Your task to perform on an android device: turn on priority inbox in the gmail app Image 0: 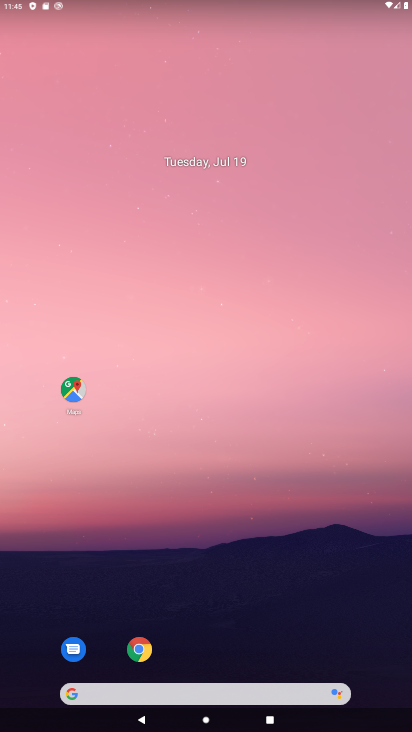
Step 0: drag from (191, 601) to (194, 271)
Your task to perform on an android device: turn on priority inbox in the gmail app Image 1: 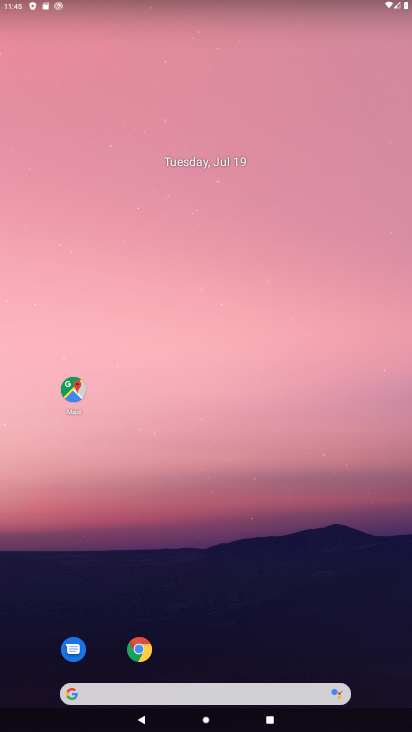
Step 1: drag from (203, 624) to (356, 3)
Your task to perform on an android device: turn on priority inbox in the gmail app Image 2: 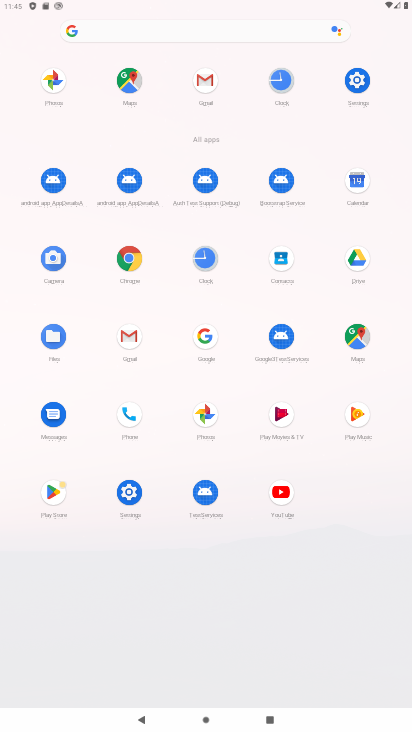
Step 2: click (129, 350)
Your task to perform on an android device: turn on priority inbox in the gmail app Image 3: 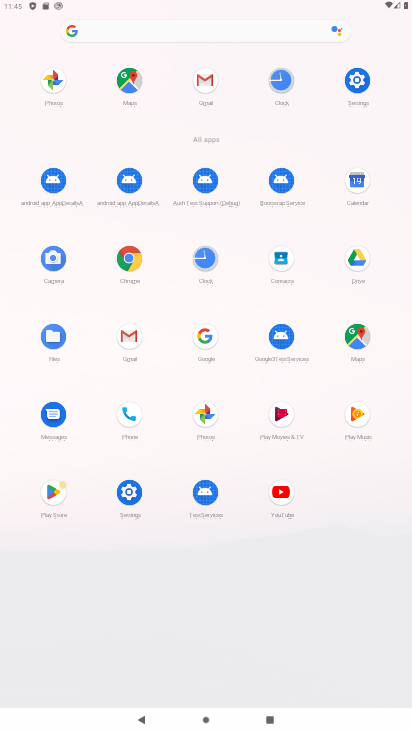
Step 3: click (128, 336)
Your task to perform on an android device: turn on priority inbox in the gmail app Image 4: 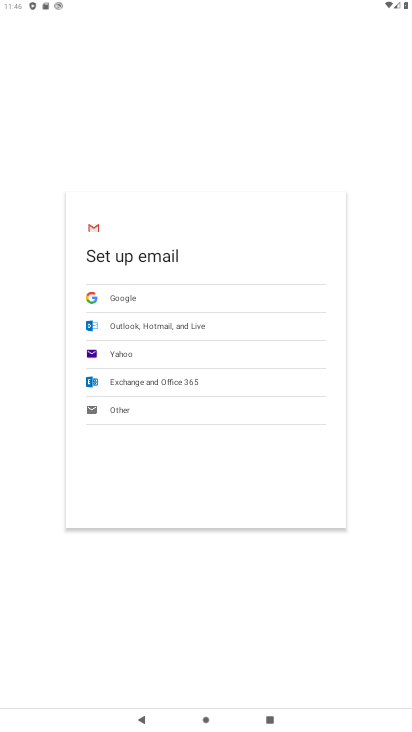
Step 4: click (118, 305)
Your task to perform on an android device: turn on priority inbox in the gmail app Image 5: 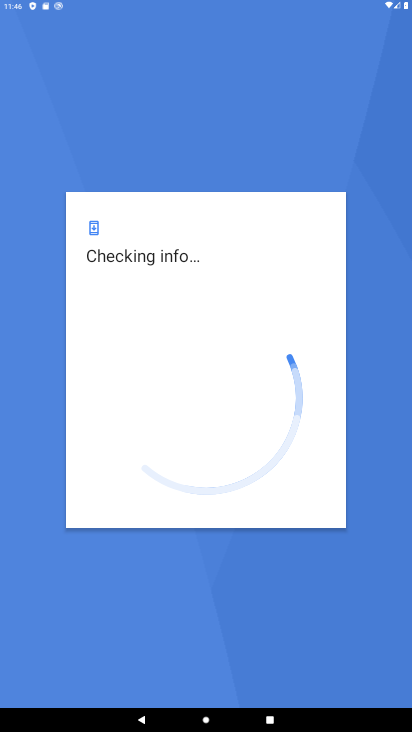
Step 5: drag from (316, 506) to (266, 164)
Your task to perform on an android device: turn on priority inbox in the gmail app Image 6: 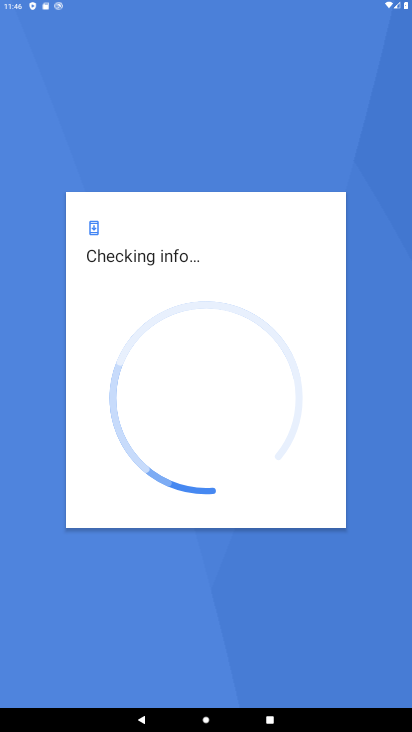
Step 6: press home button
Your task to perform on an android device: turn on priority inbox in the gmail app Image 7: 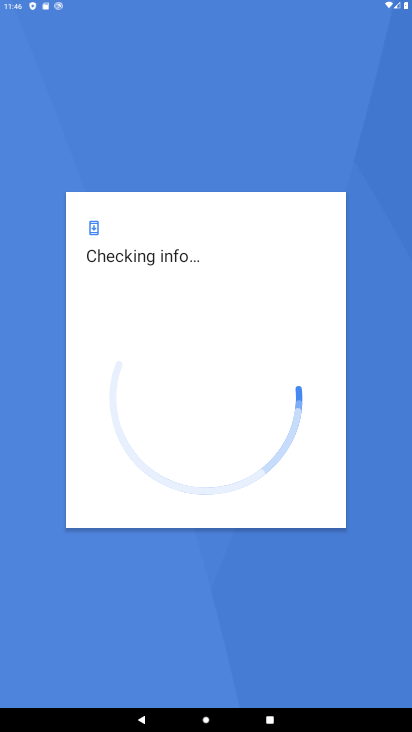
Step 7: drag from (214, 606) to (291, 240)
Your task to perform on an android device: turn on priority inbox in the gmail app Image 8: 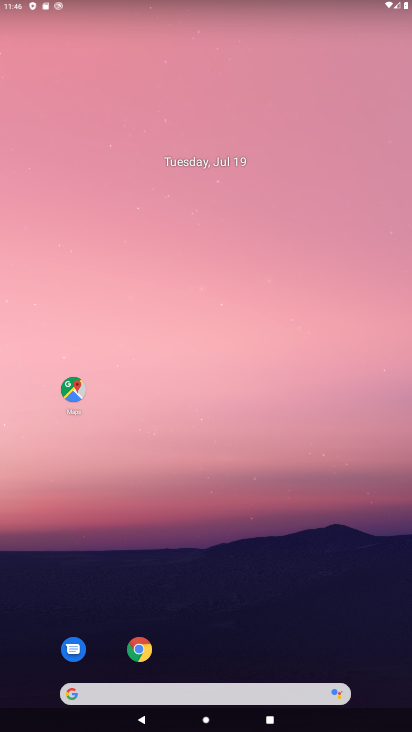
Step 8: drag from (266, 580) to (361, 19)
Your task to perform on an android device: turn on priority inbox in the gmail app Image 9: 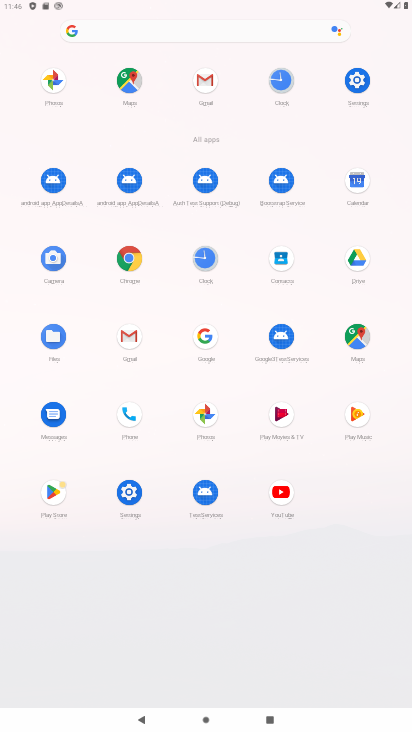
Step 9: click (124, 330)
Your task to perform on an android device: turn on priority inbox in the gmail app Image 10: 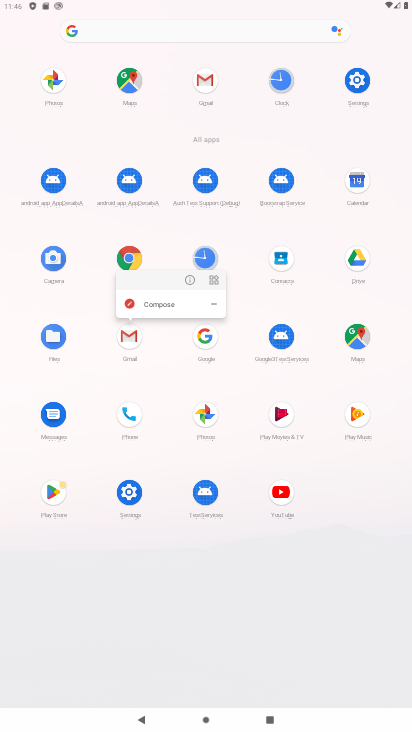
Step 10: click (195, 278)
Your task to perform on an android device: turn on priority inbox in the gmail app Image 11: 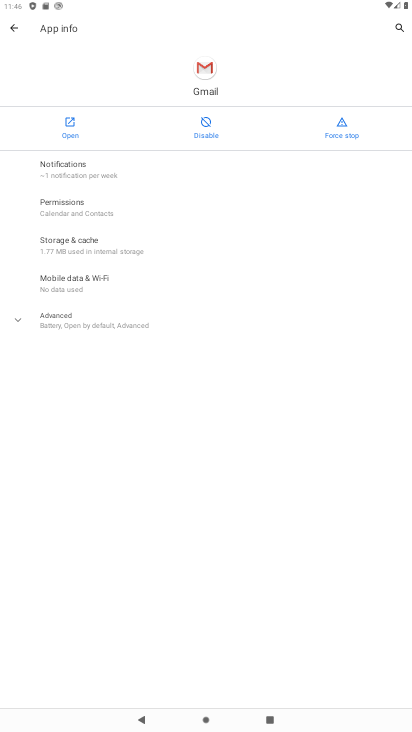
Step 11: click (71, 130)
Your task to perform on an android device: turn on priority inbox in the gmail app Image 12: 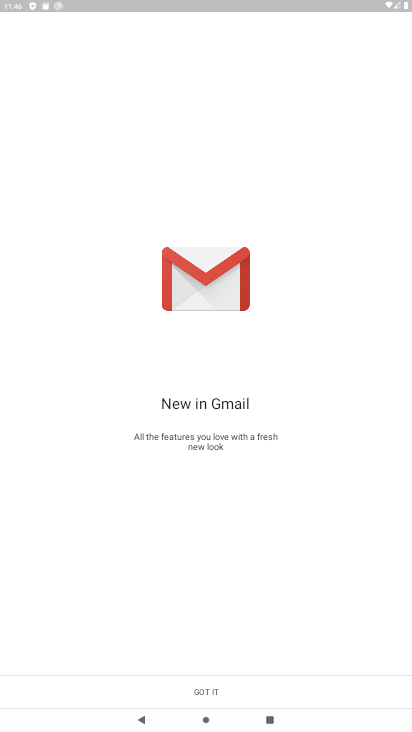
Step 12: drag from (156, 398) to (195, 218)
Your task to perform on an android device: turn on priority inbox in the gmail app Image 13: 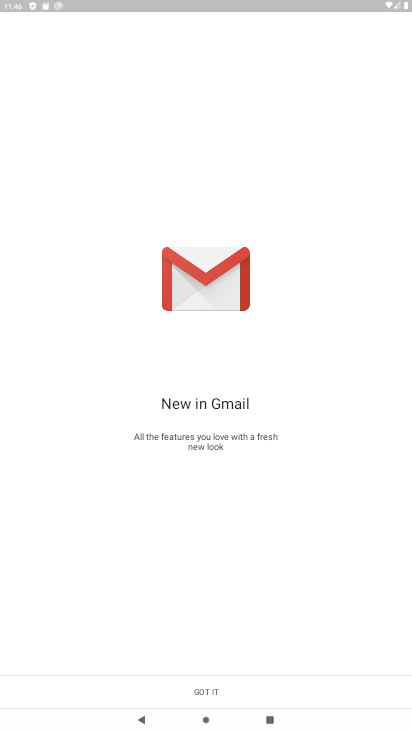
Step 13: drag from (261, 605) to (217, 371)
Your task to perform on an android device: turn on priority inbox in the gmail app Image 14: 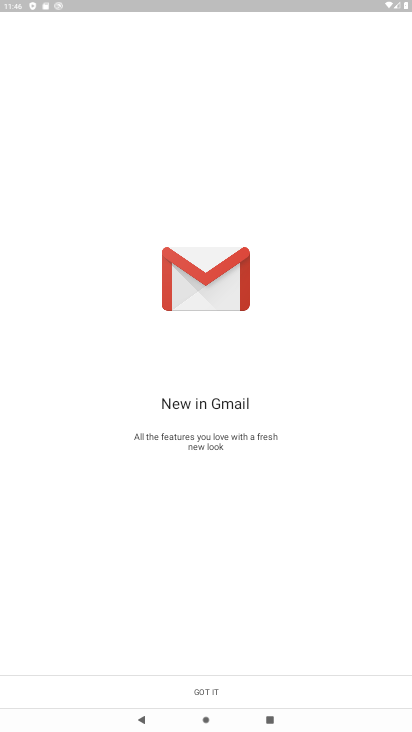
Step 14: drag from (283, 511) to (283, 309)
Your task to perform on an android device: turn on priority inbox in the gmail app Image 15: 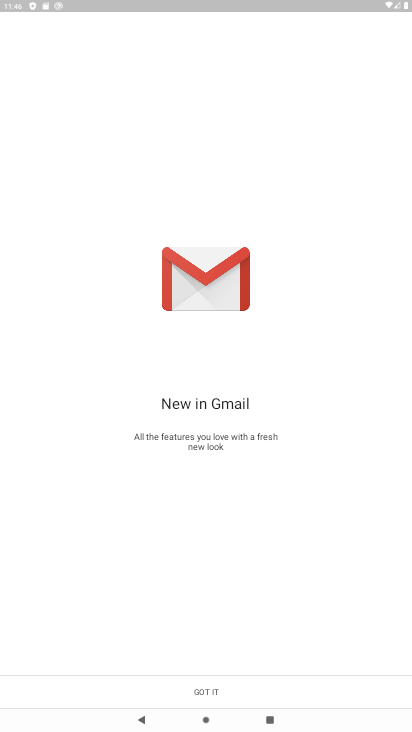
Step 15: click (201, 695)
Your task to perform on an android device: turn on priority inbox in the gmail app Image 16: 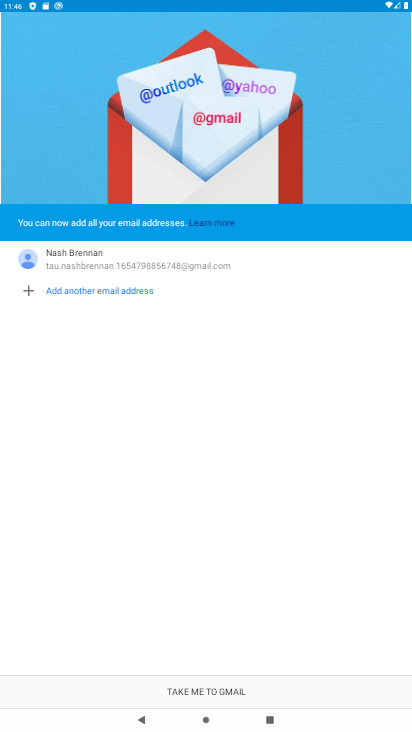
Step 16: click (206, 690)
Your task to perform on an android device: turn on priority inbox in the gmail app Image 17: 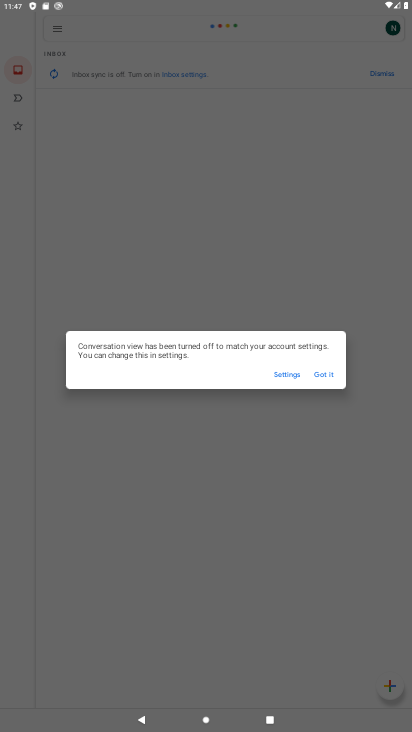
Step 17: click (322, 368)
Your task to perform on an android device: turn on priority inbox in the gmail app Image 18: 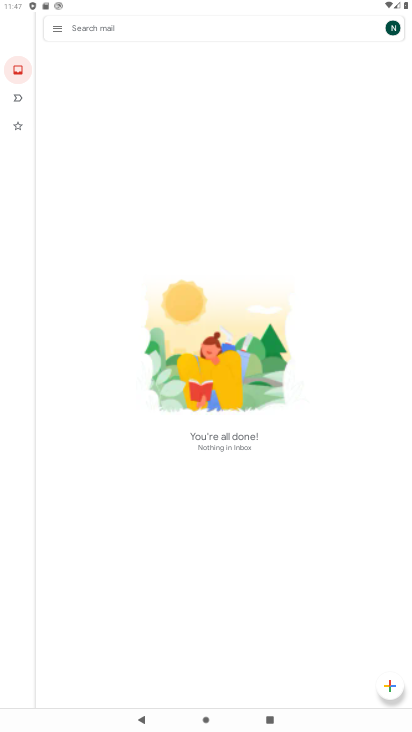
Step 18: click (41, 29)
Your task to perform on an android device: turn on priority inbox in the gmail app Image 19: 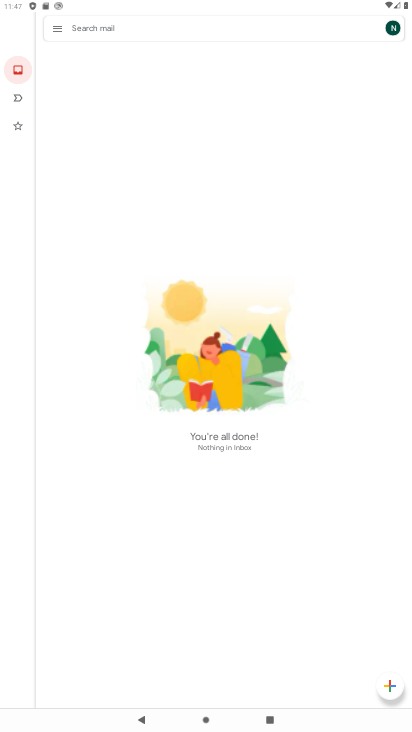
Step 19: click (54, 29)
Your task to perform on an android device: turn on priority inbox in the gmail app Image 20: 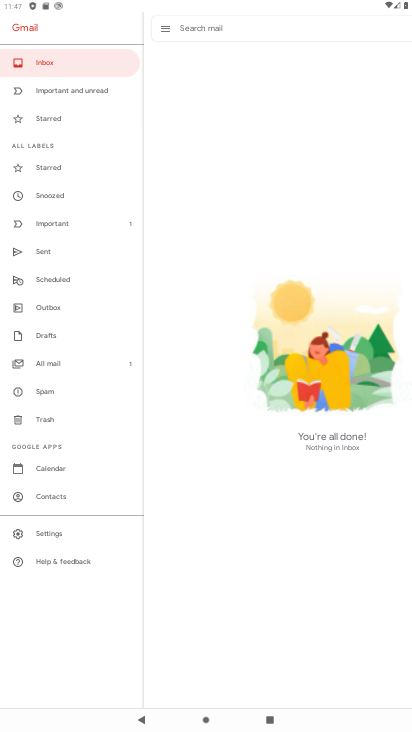
Step 20: click (34, 544)
Your task to perform on an android device: turn on priority inbox in the gmail app Image 21: 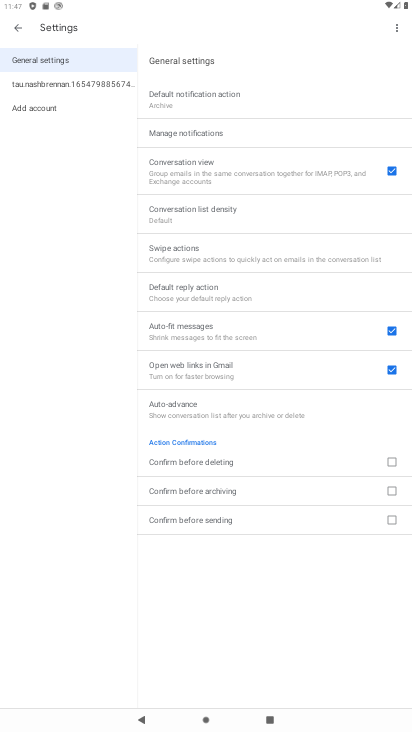
Step 21: click (40, 82)
Your task to perform on an android device: turn on priority inbox in the gmail app Image 22: 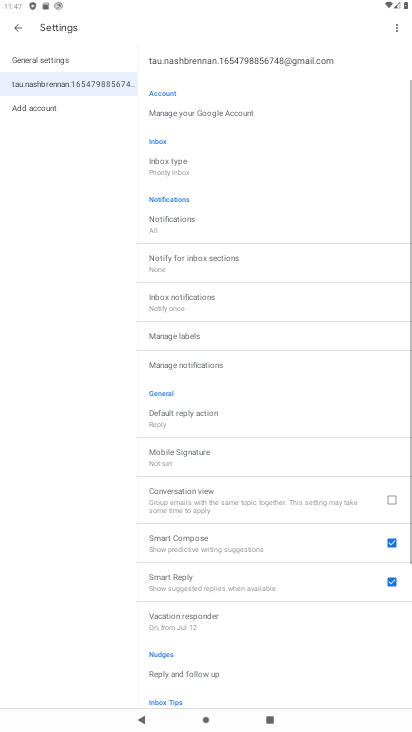
Step 22: click (205, 190)
Your task to perform on an android device: turn on priority inbox in the gmail app Image 23: 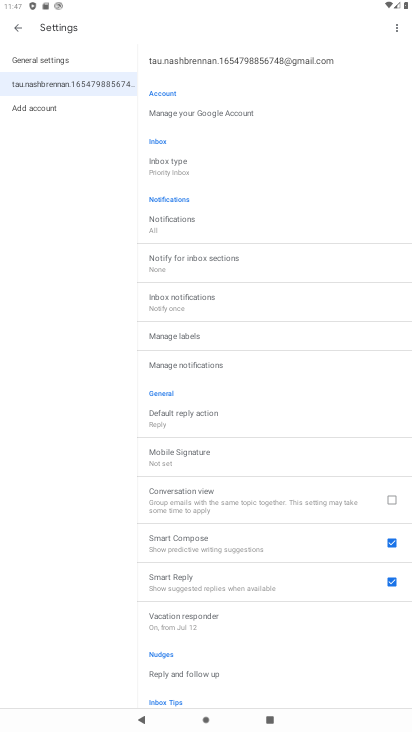
Step 23: click (189, 172)
Your task to perform on an android device: turn on priority inbox in the gmail app Image 24: 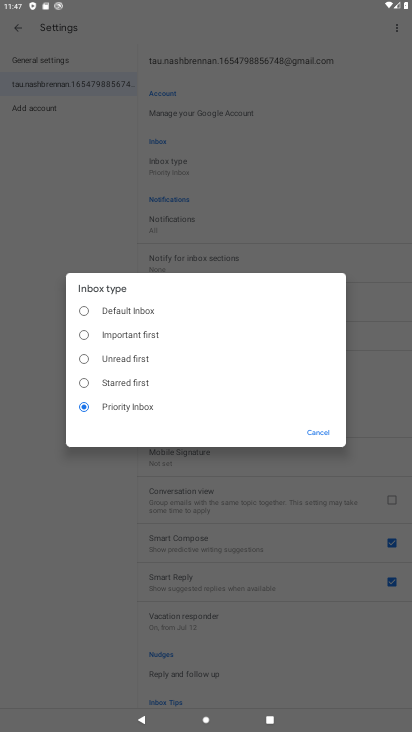
Step 24: task complete